Your task to perform on an android device: Go to network settings Image 0: 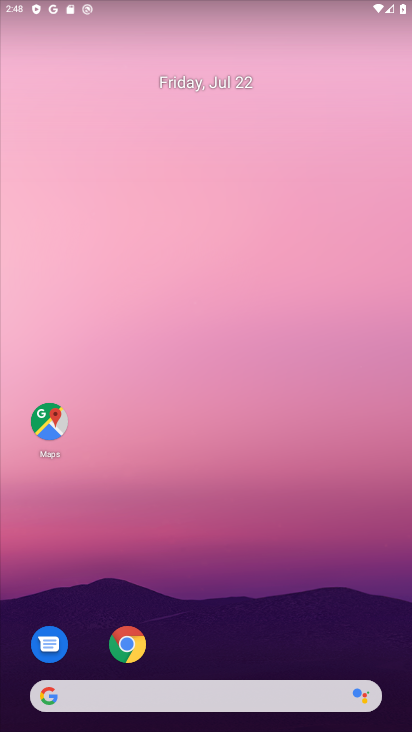
Step 0: drag from (271, 594) to (286, 141)
Your task to perform on an android device: Go to network settings Image 1: 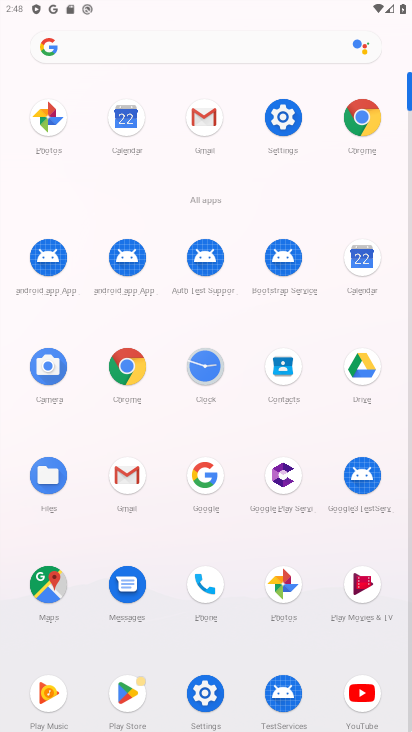
Step 1: click (293, 114)
Your task to perform on an android device: Go to network settings Image 2: 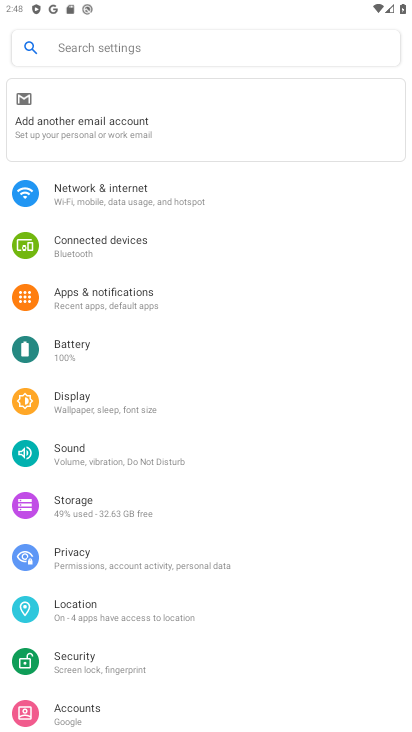
Step 2: click (141, 192)
Your task to perform on an android device: Go to network settings Image 3: 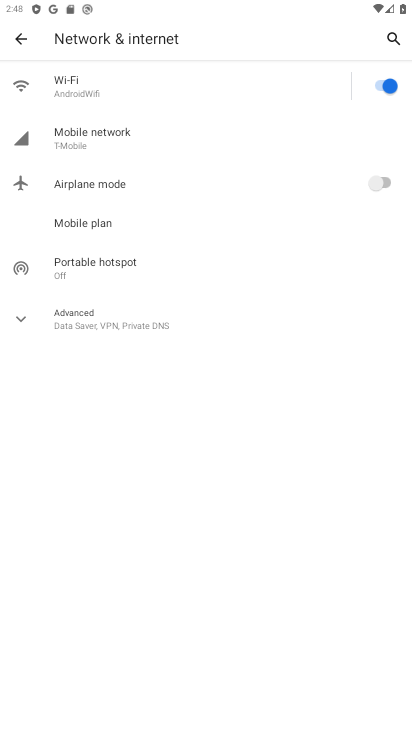
Step 3: task complete